Your task to perform on an android device: Go to eBay Image 0: 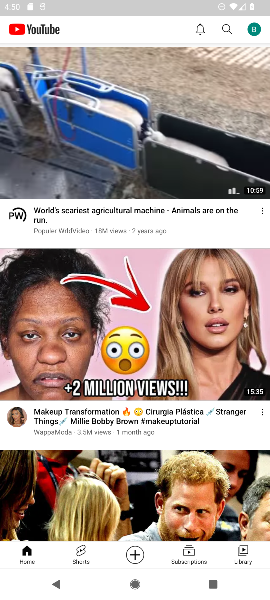
Step 0: press home button
Your task to perform on an android device: Go to eBay Image 1: 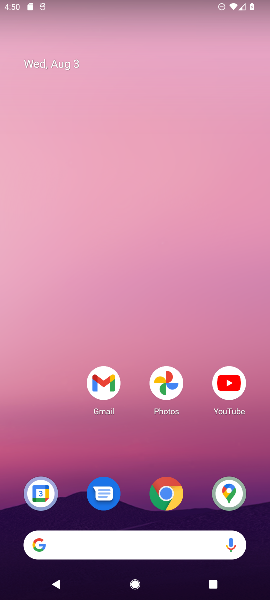
Step 1: drag from (53, 449) to (51, 68)
Your task to perform on an android device: Go to eBay Image 2: 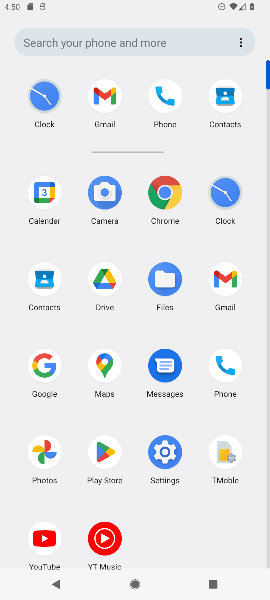
Step 2: click (166, 193)
Your task to perform on an android device: Go to eBay Image 3: 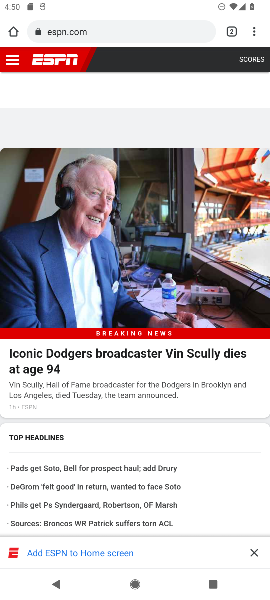
Step 3: click (136, 31)
Your task to perform on an android device: Go to eBay Image 4: 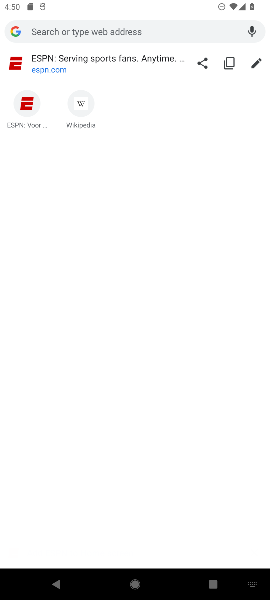
Step 4: type "ebay"
Your task to perform on an android device: Go to eBay Image 5: 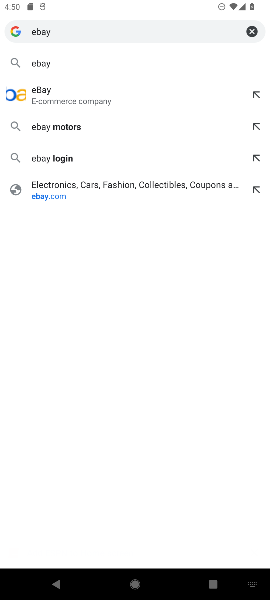
Step 5: click (70, 90)
Your task to perform on an android device: Go to eBay Image 6: 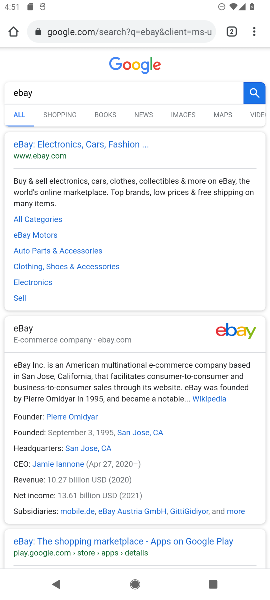
Step 6: task complete